Your task to perform on an android device: stop showing notifications on the lock screen Image 0: 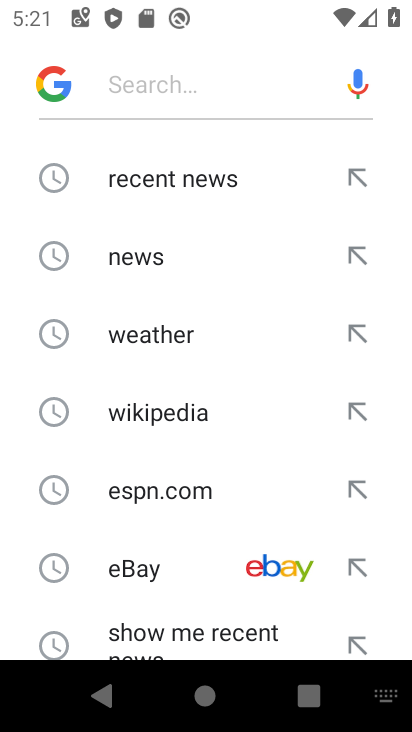
Step 0: press home button
Your task to perform on an android device: stop showing notifications on the lock screen Image 1: 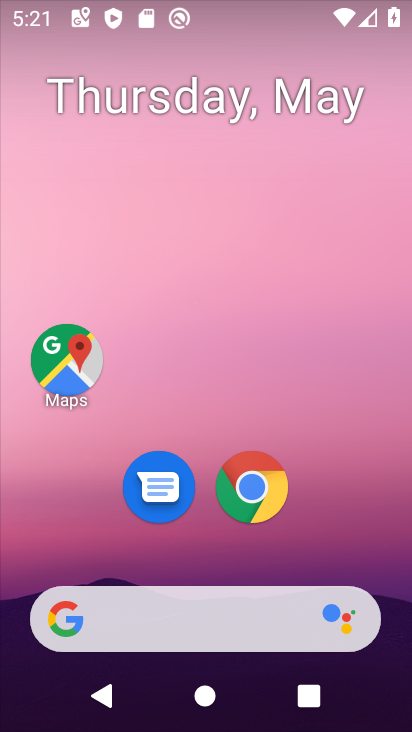
Step 1: drag from (317, 523) to (303, 54)
Your task to perform on an android device: stop showing notifications on the lock screen Image 2: 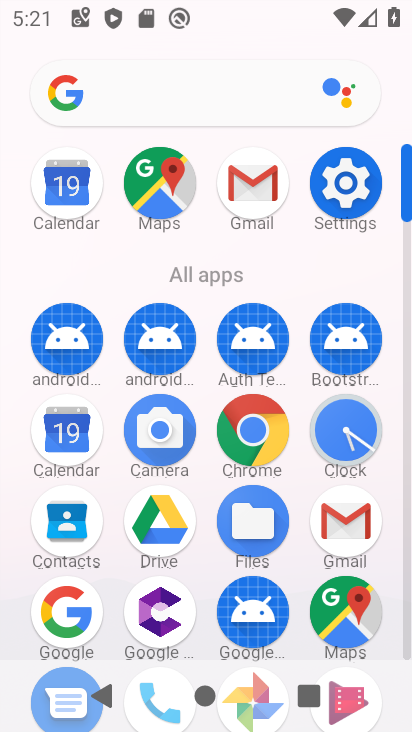
Step 2: click (338, 181)
Your task to perform on an android device: stop showing notifications on the lock screen Image 3: 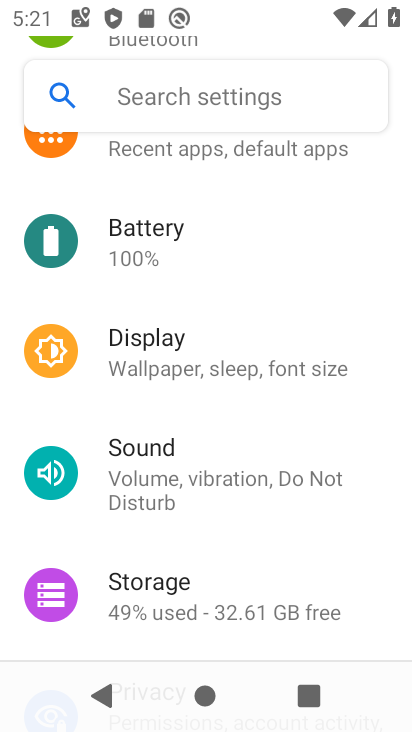
Step 3: drag from (269, 290) to (294, 541)
Your task to perform on an android device: stop showing notifications on the lock screen Image 4: 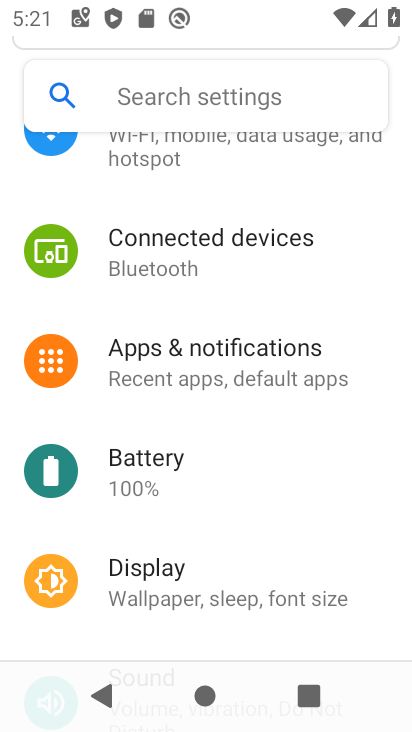
Step 4: click (255, 355)
Your task to perform on an android device: stop showing notifications on the lock screen Image 5: 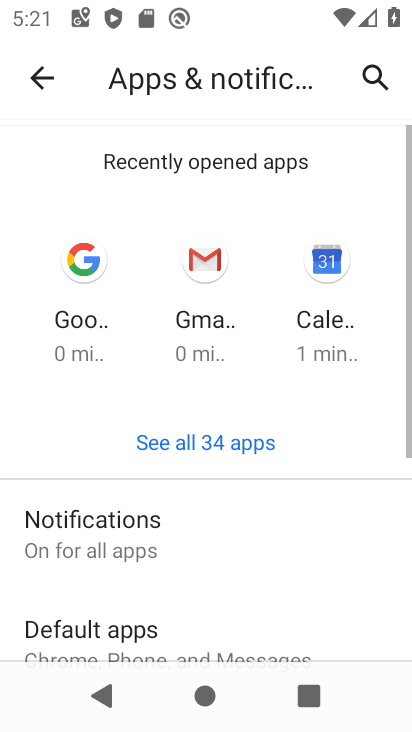
Step 5: click (192, 534)
Your task to perform on an android device: stop showing notifications on the lock screen Image 6: 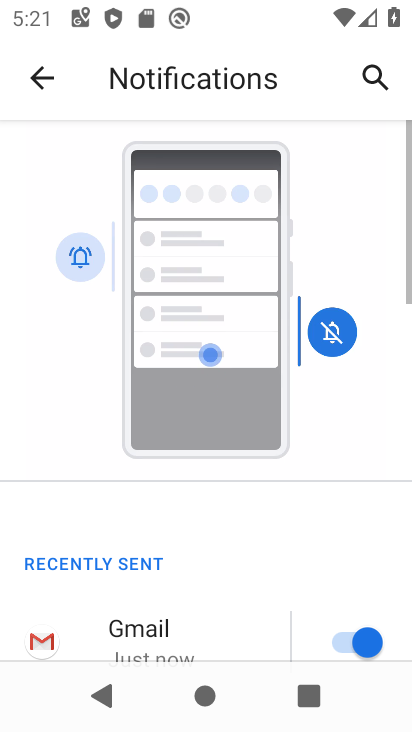
Step 6: task complete